Your task to perform on an android device: see sites visited before in the chrome app Image 0: 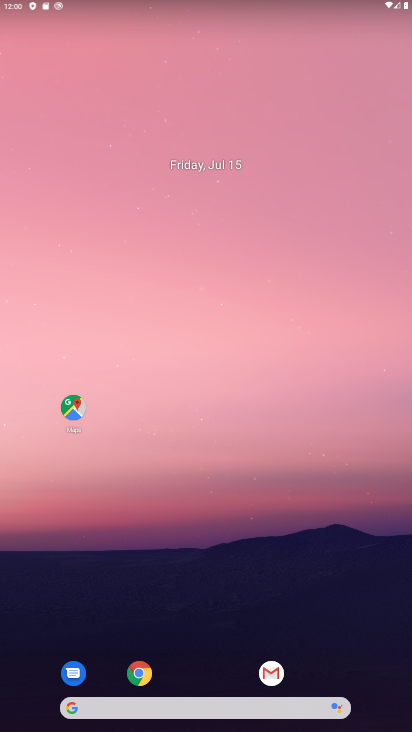
Step 0: press home button
Your task to perform on an android device: see sites visited before in the chrome app Image 1: 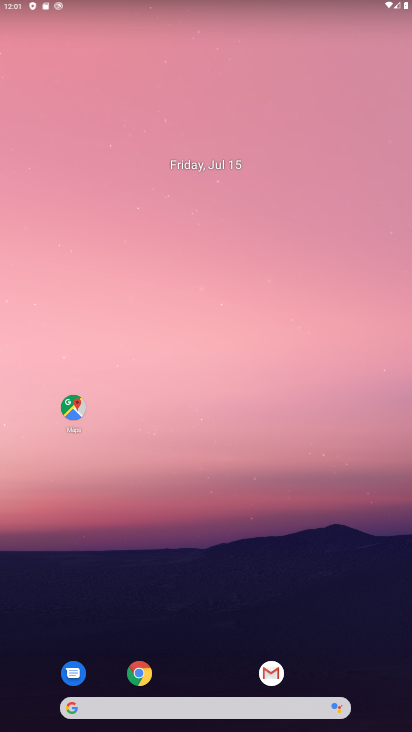
Step 1: click (146, 667)
Your task to perform on an android device: see sites visited before in the chrome app Image 2: 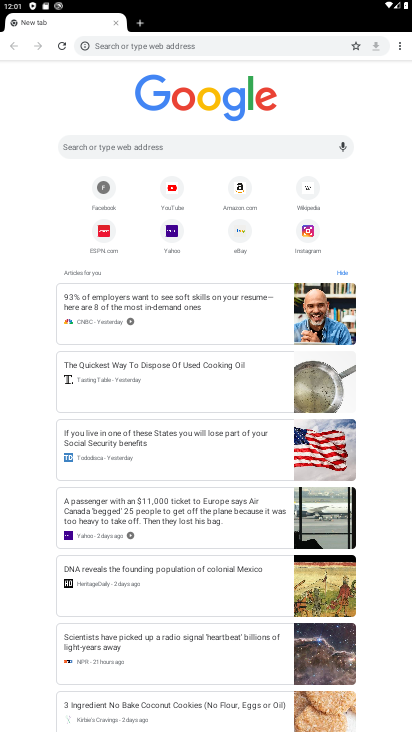
Step 2: click (401, 49)
Your task to perform on an android device: see sites visited before in the chrome app Image 3: 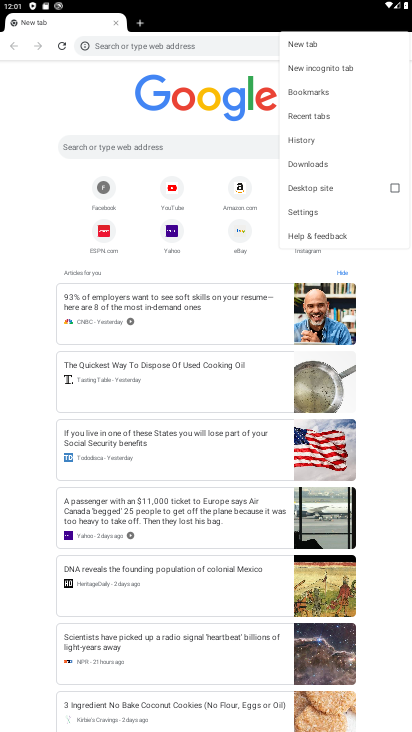
Step 3: click (317, 219)
Your task to perform on an android device: see sites visited before in the chrome app Image 4: 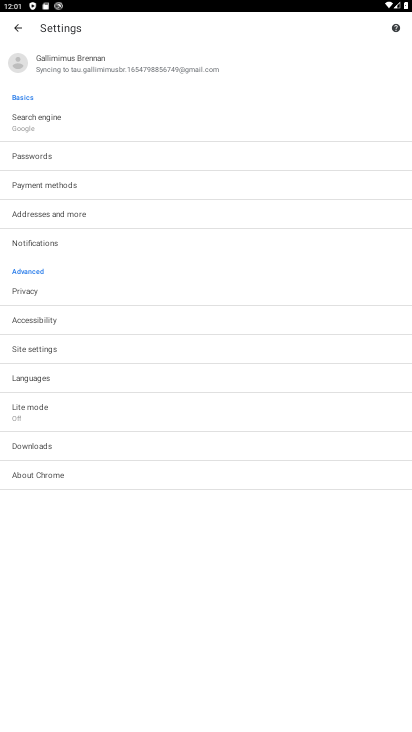
Step 4: click (46, 354)
Your task to perform on an android device: see sites visited before in the chrome app Image 5: 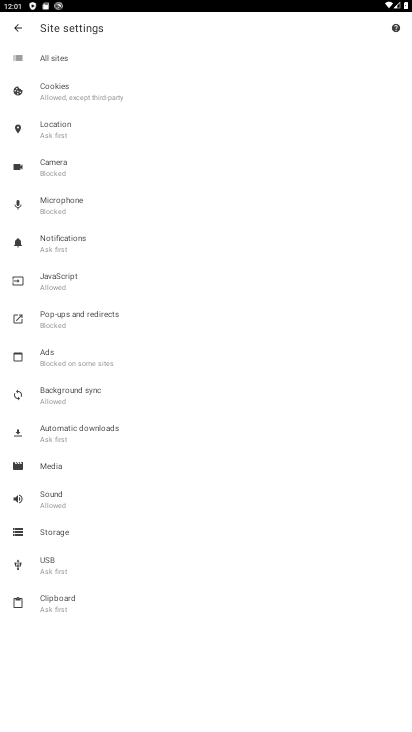
Step 5: click (113, 54)
Your task to perform on an android device: see sites visited before in the chrome app Image 6: 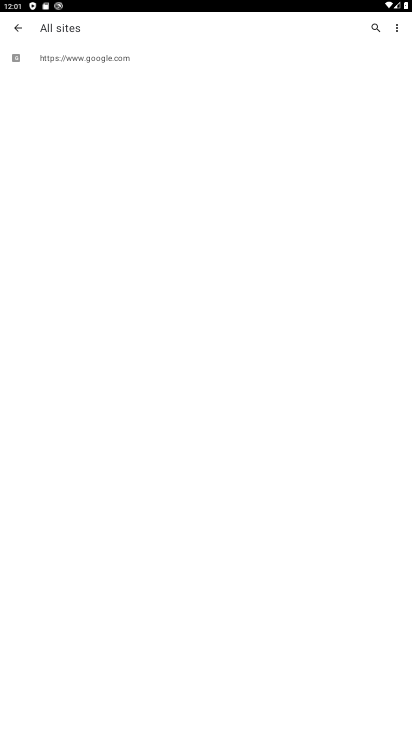
Step 6: task complete